Your task to perform on an android device: Is it going to rain tomorrow? Image 0: 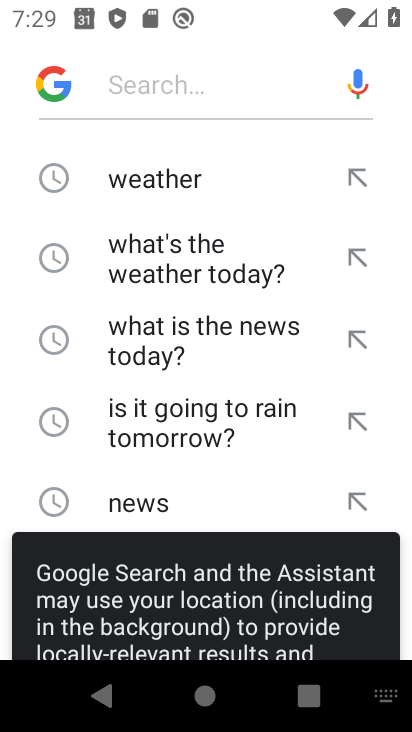
Step 0: press home button
Your task to perform on an android device: Is it going to rain tomorrow? Image 1: 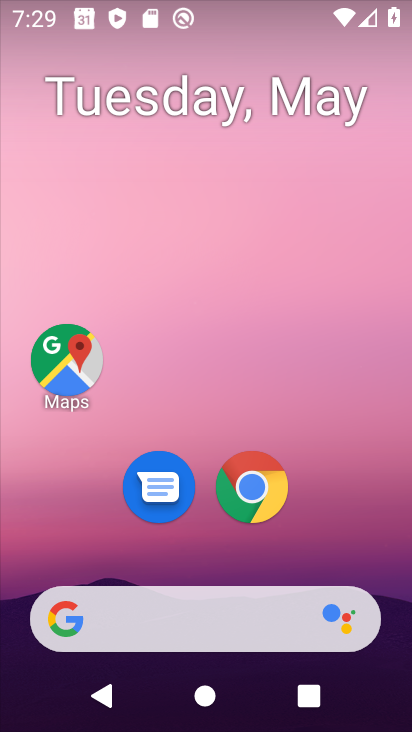
Step 1: click (242, 621)
Your task to perform on an android device: Is it going to rain tomorrow? Image 2: 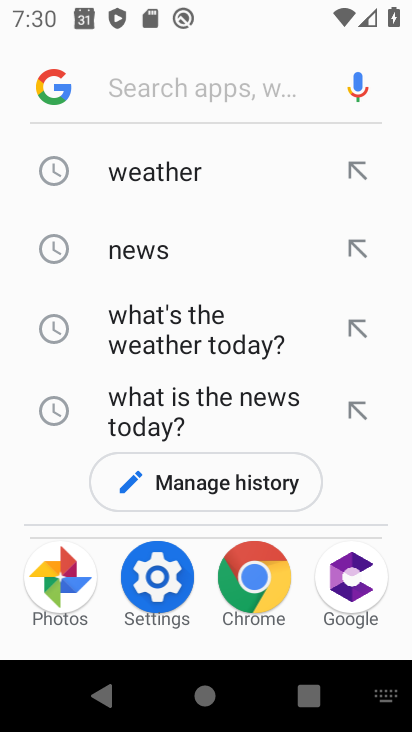
Step 2: click (181, 174)
Your task to perform on an android device: Is it going to rain tomorrow? Image 3: 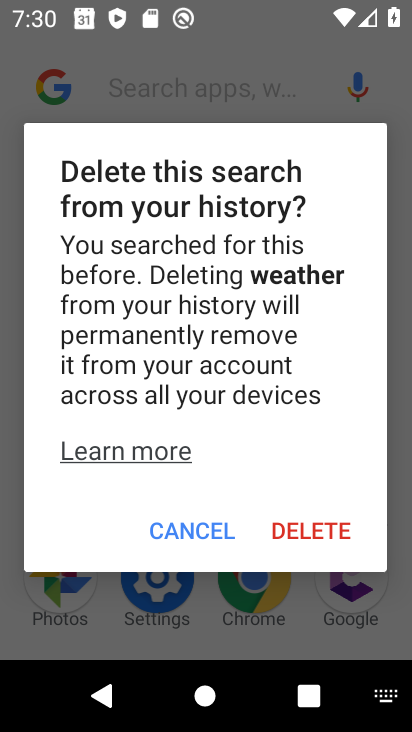
Step 3: click (192, 546)
Your task to perform on an android device: Is it going to rain tomorrow? Image 4: 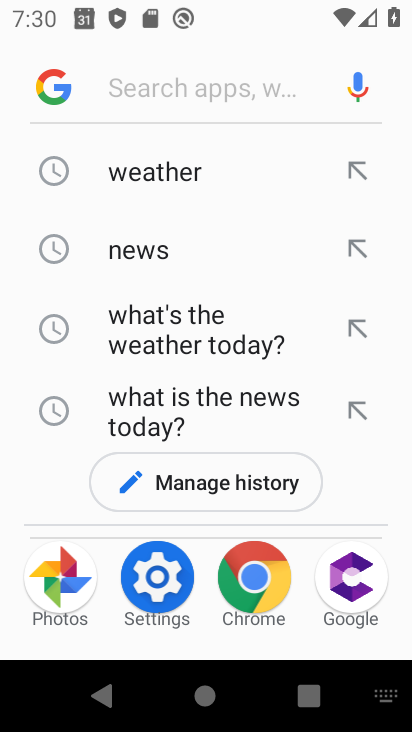
Step 4: click (228, 186)
Your task to perform on an android device: Is it going to rain tomorrow? Image 5: 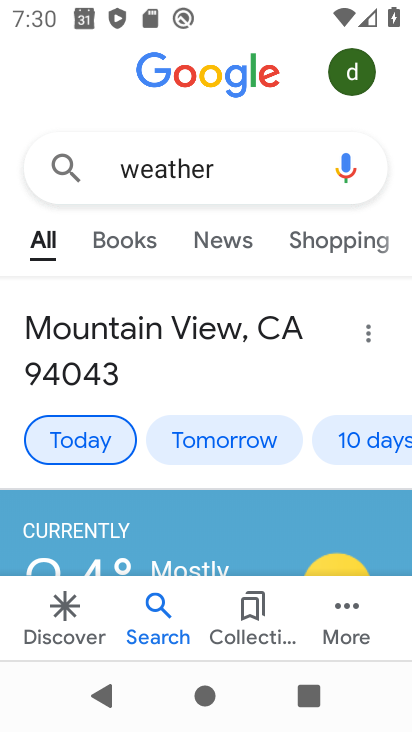
Step 5: click (208, 427)
Your task to perform on an android device: Is it going to rain tomorrow? Image 6: 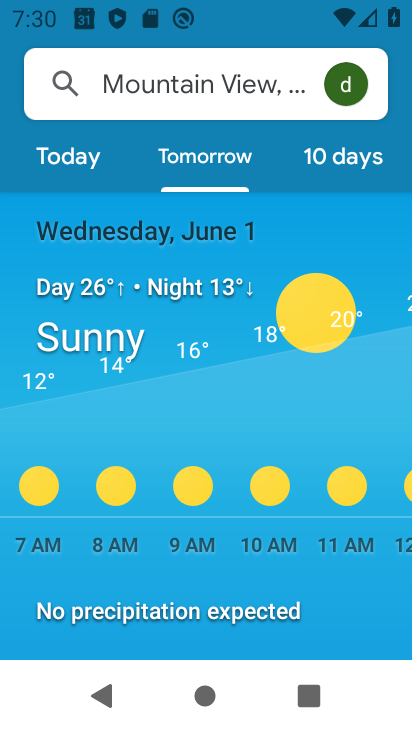
Step 6: task complete